Your task to perform on an android device: open a new tab in the chrome app Image 0: 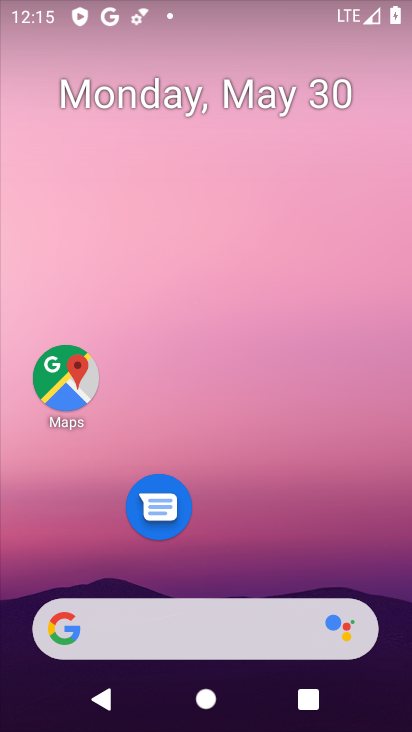
Step 0: drag from (251, 556) to (347, 84)
Your task to perform on an android device: open a new tab in the chrome app Image 1: 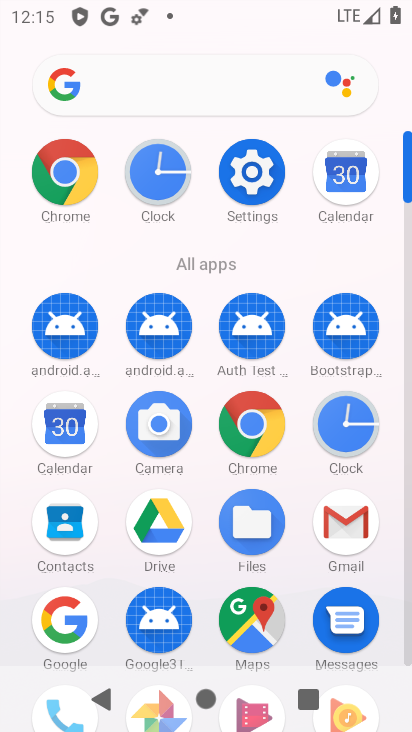
Step 1: click (77, 181)
Your task to perform on an android device: open a new tab in the chrome app Image 2: 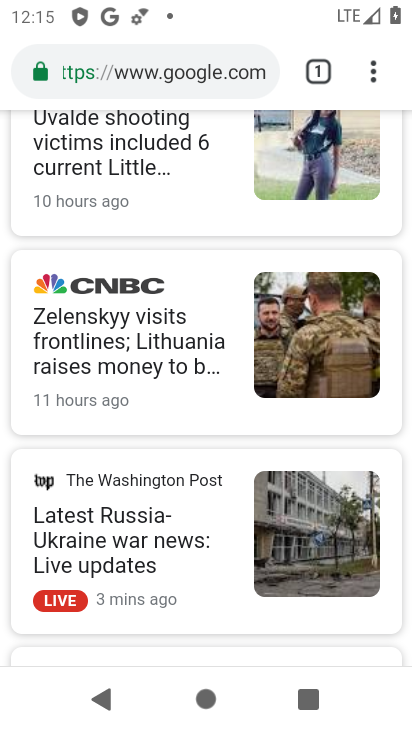
Step 2: task complete